Your task to perform on an android device: Do I have any events today? Image 0: 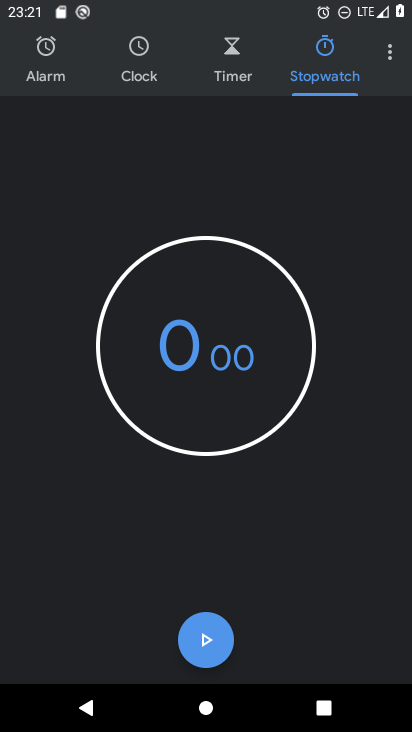
Step 0: press home button
Your task to perform on an android device: Do I have any events today? Image 1: 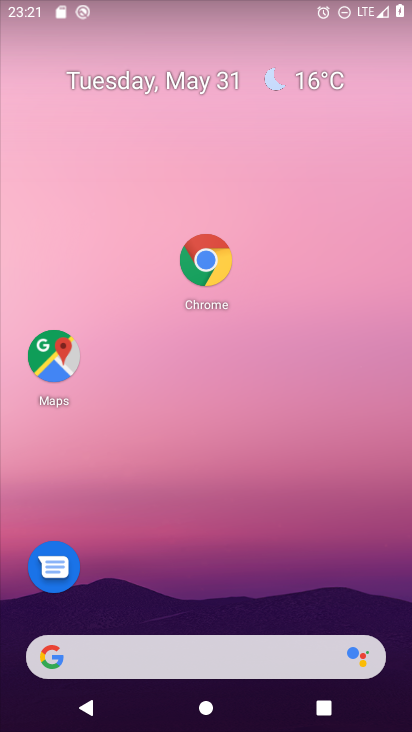
Step 1: drag from (120, 624) to (122, 191)
Your task to perform on an android device: Do I have any events today? Image 2: 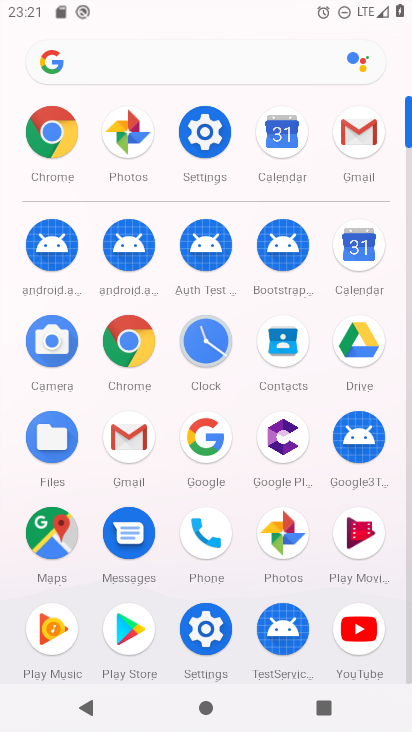
Step 2: click (376, 245)
Your task to perform on an android device: Do I have any events today? Image 3: 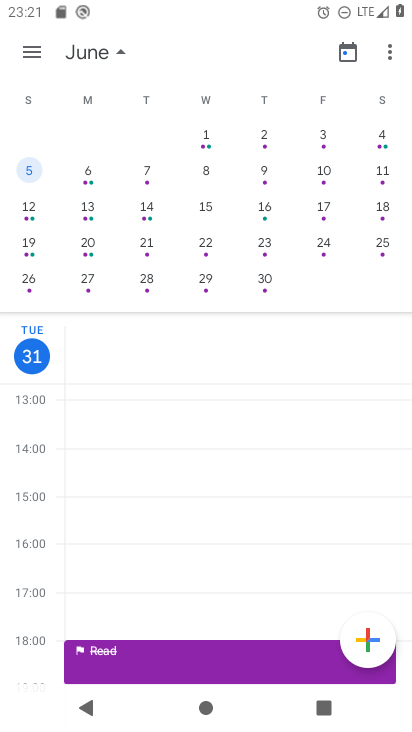
Step 3: click (67, 162)
Your task to perform on an android device: Do I have any events today? Image 4: 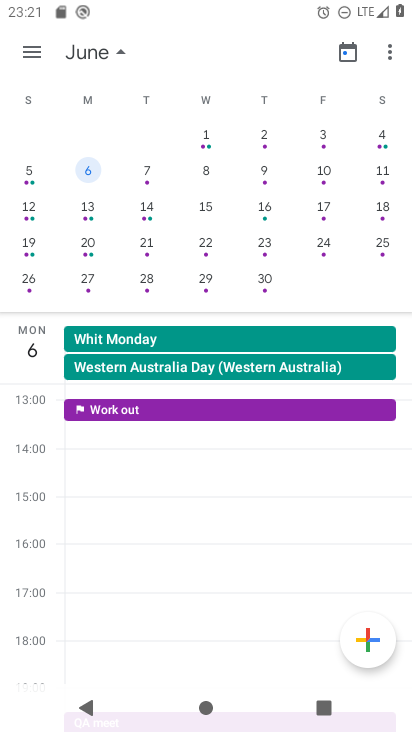
Step 4: click (201, 138)
Your task to perform on an android device: Do I have any events today? Image 5: 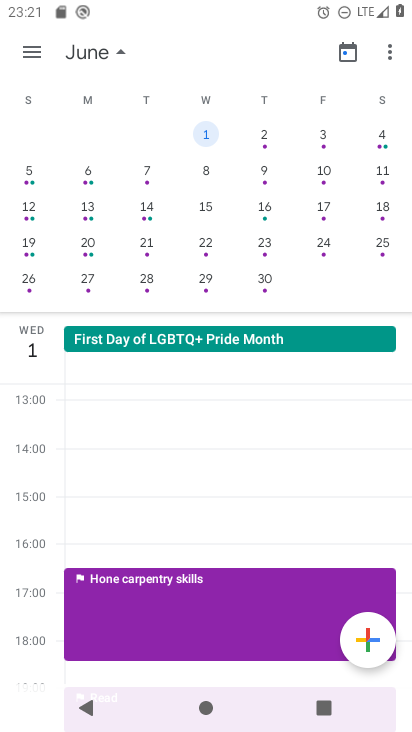
Step 5: task complete